Your task to perform on an android device: What's the weather? Image 0: 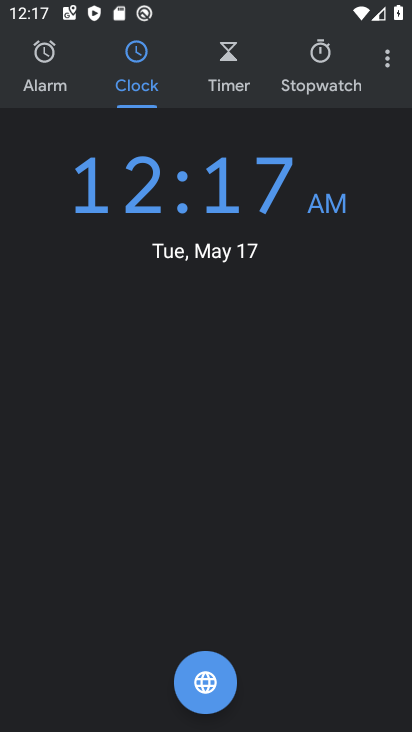
Step 0: press home button
Your task to perform on an android device: What's the weather? Image 1: 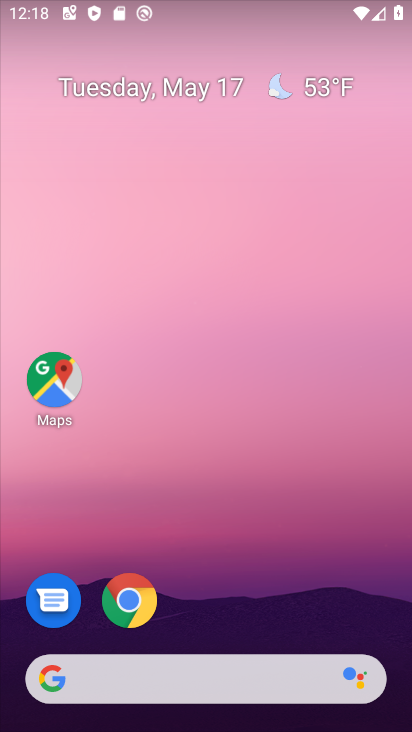
Step 1: click (140, 612)
Your task to perform on an android device: What's the weather? Image 2: 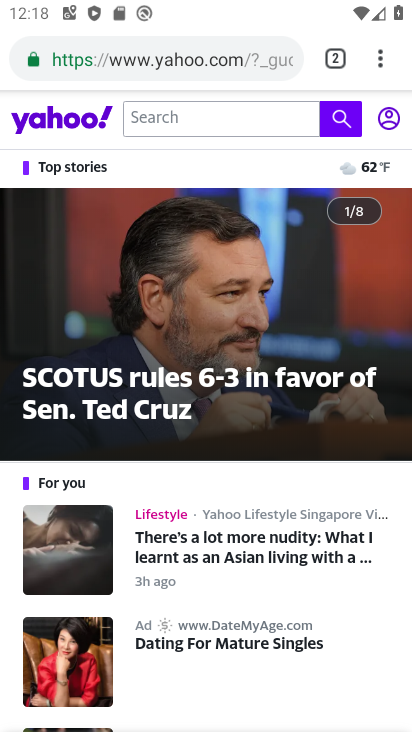
Step 2: click (193, 59)
Your task to perform on an android device: What's the weather? Image 3: 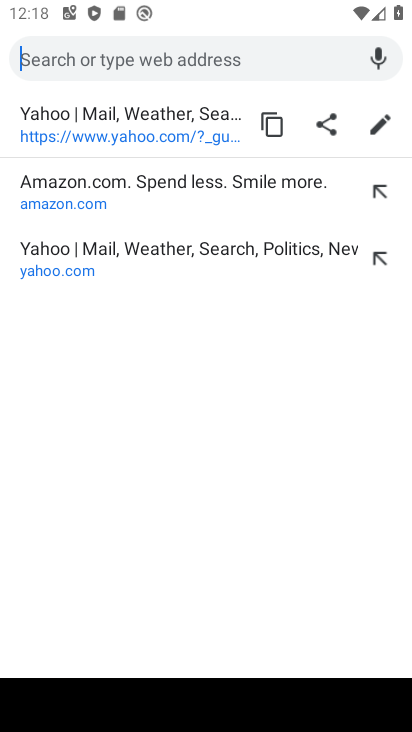
Step 3: drag from (87, 726) to (157, 717)
Your task to perform on an android device: What's the weather? Image 4: 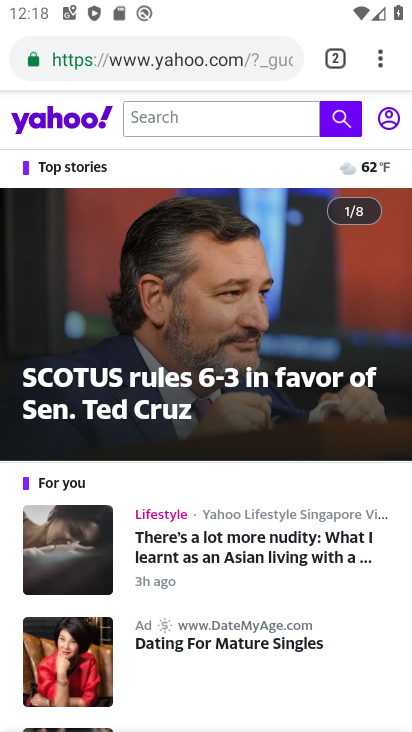
Step 4: click (205, 64)
Your task to perform on an android device: What's the weather? Image 5: 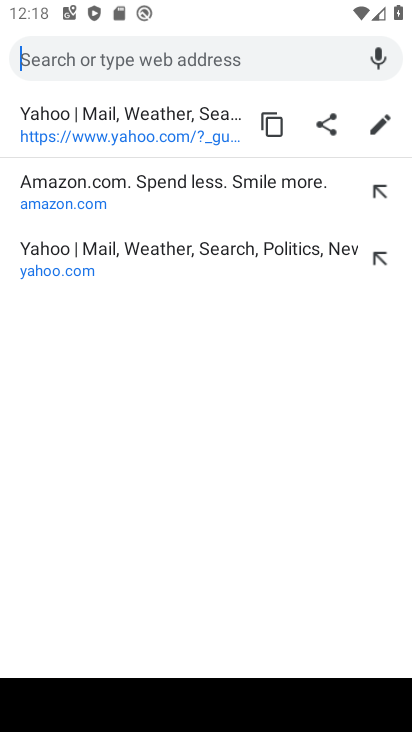
Step 5: type "What's the weather?"
Your task to perform on an android device: What's the weather? Image 6: 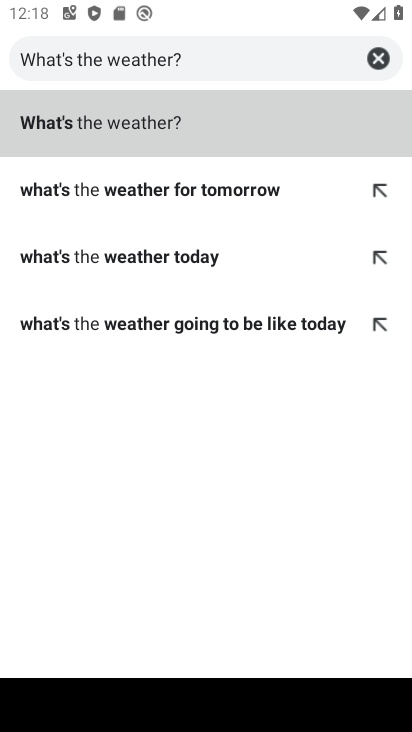
Step 6: click (128, 126)
Your task to perform on an android device: What's the weather? Image 7: 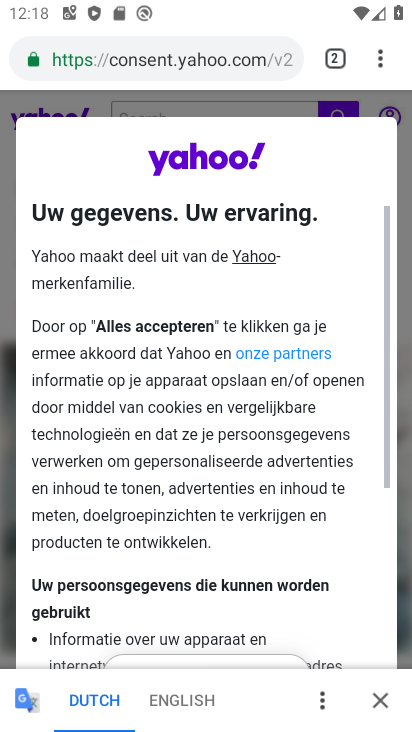
Step 7: drag from (340, 601) to (311, 255)
Your task to perform on an android device: What's the weather? Image 8: 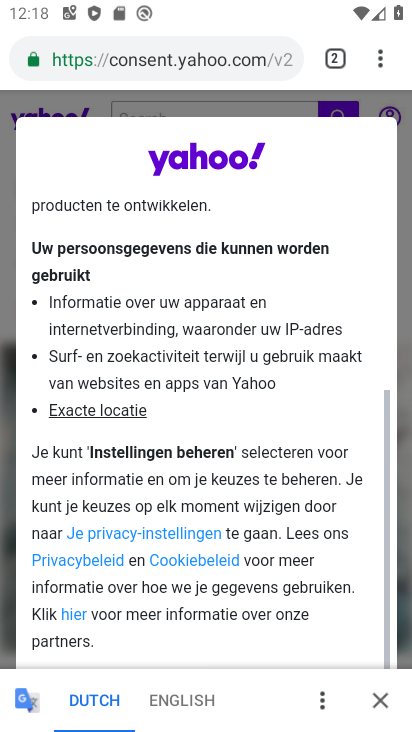
Step 8: drag from (346, 623) to (296, 153)
Your task to perform on an android device: What's the weather? Image 9: 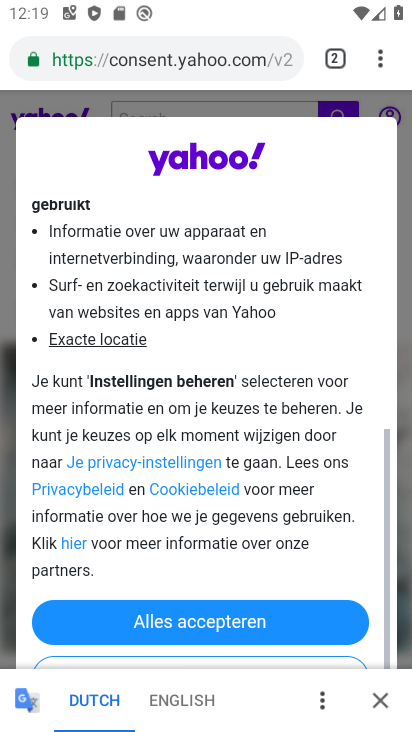
Step 9: click (289, 638)
Your task to perform on an android device: What's the weather? Image 10: 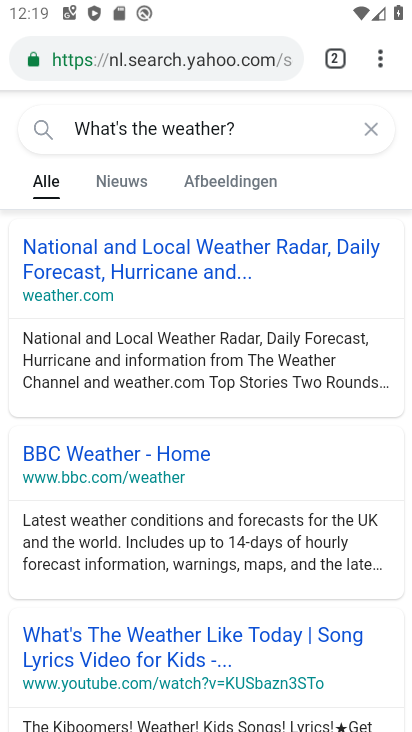
Step 10: click (250, 267)
Your task to perform on an android device: What's the weather? Image 11: 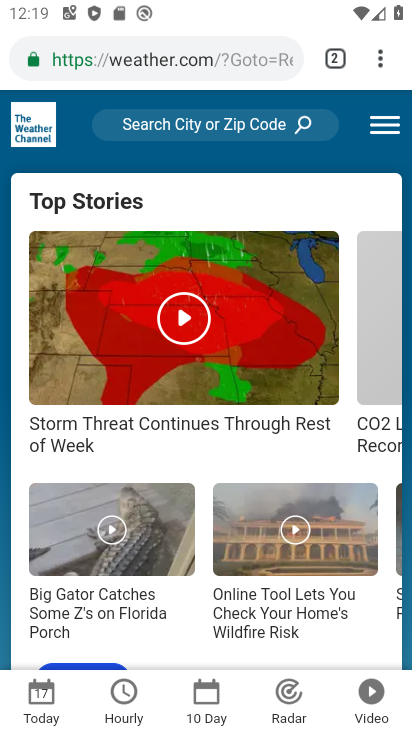
Step 11: task complete